Your task to perform on an android device: Open ESPN.com Image 0: 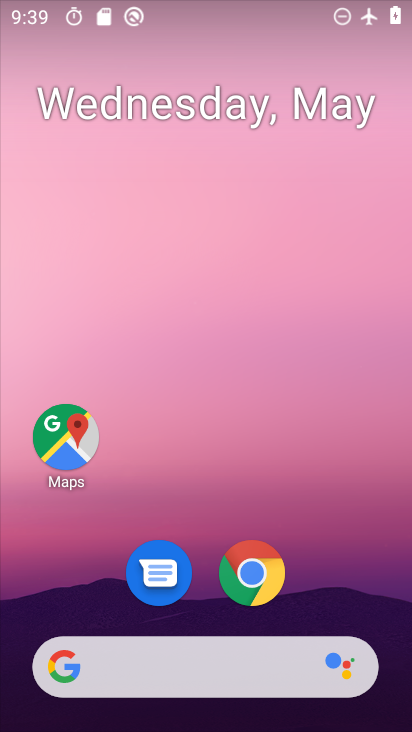
Step 0: click (249, 577)
Your task to perform on an android device: Open ESPN.com Image 1: 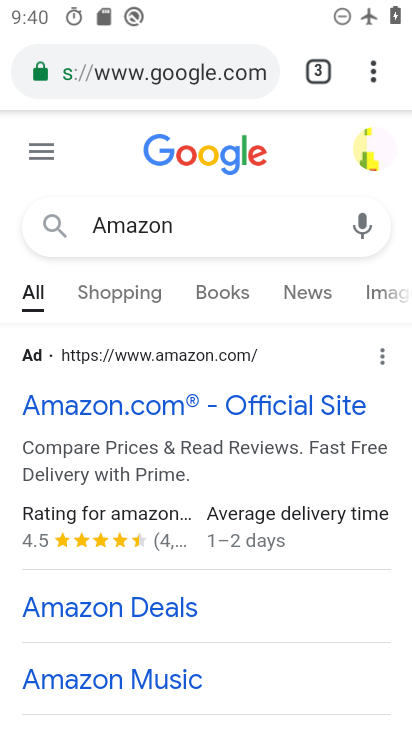
Step 1: click (255, 72)
Your task to perform on an android device: Open ESPN.com Image 2: 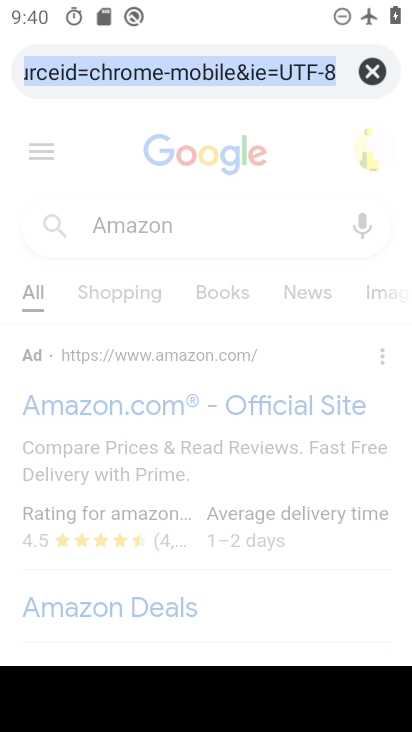
Step 2: click (377, 71)
Your task to perform on an android device: Open ESPN.com Image 3: 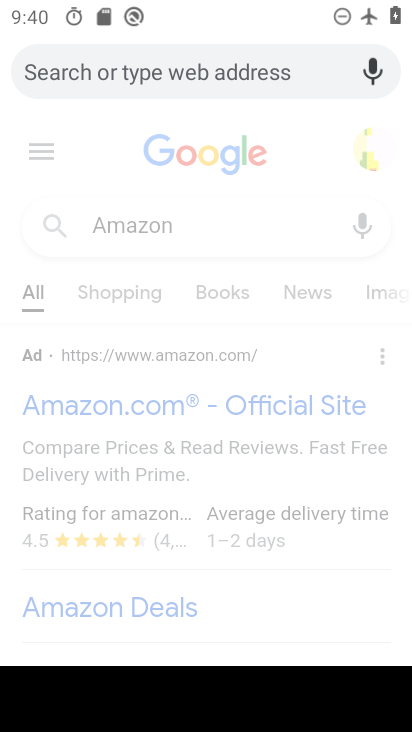
Step 3: type "ESPN.com"
Your task to perform on an android device: Open ESPN.com Image 4: 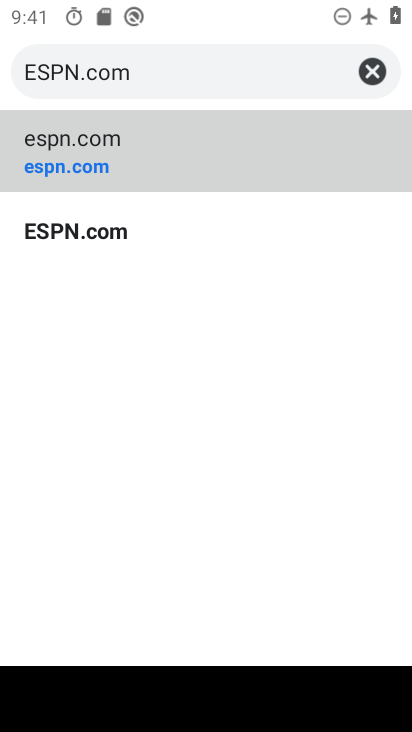
Step 4: click (51, 231)
Your task to perform on an android device: Open ESPN.com Image 5: 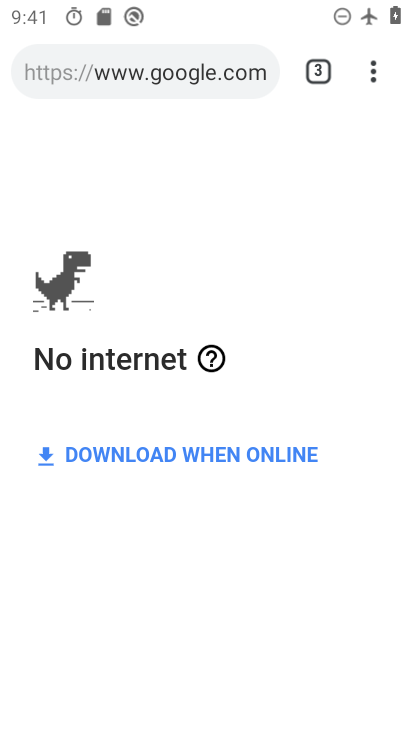
Step 5: task complete